Your task to perform on an android device: set default search engine in the chrome app Image 0: 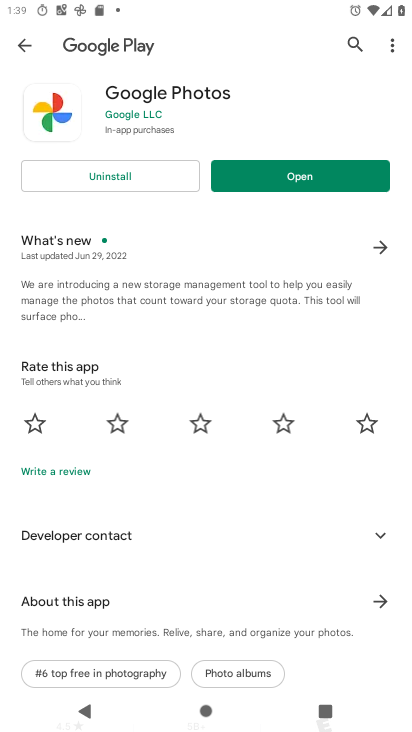
Step 0: press home button
Your task to perform on an android device: set default search engine in the chrome app Image 1: 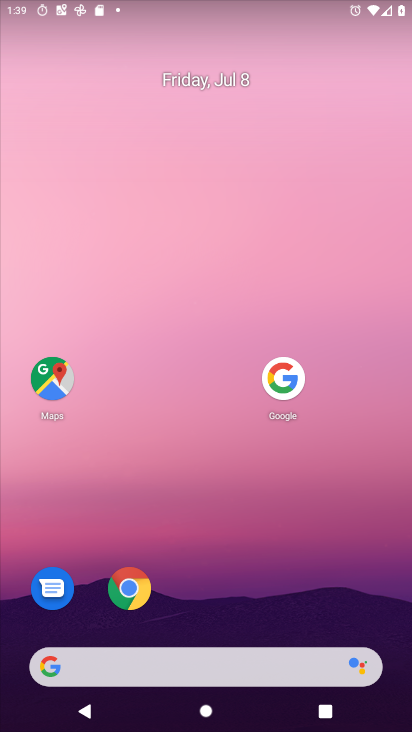
Step 1: click (123, 583)
Your task to perform on an android device: set default search engine in the chrome app Image 2: 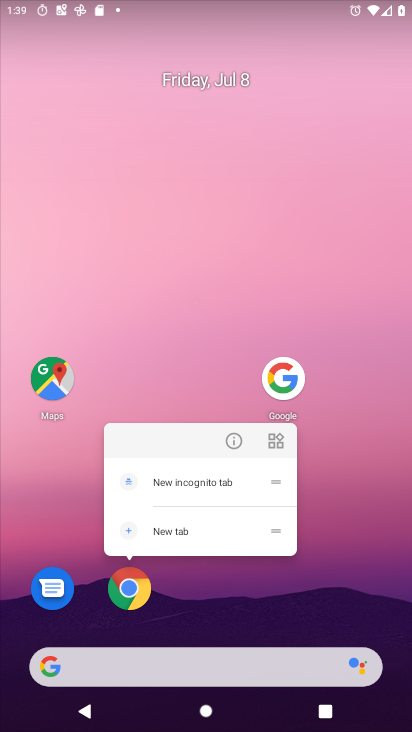
Step 2: click (127, 598)
Your task to perform on an android device: set default search engine in the chrome app Image 3: 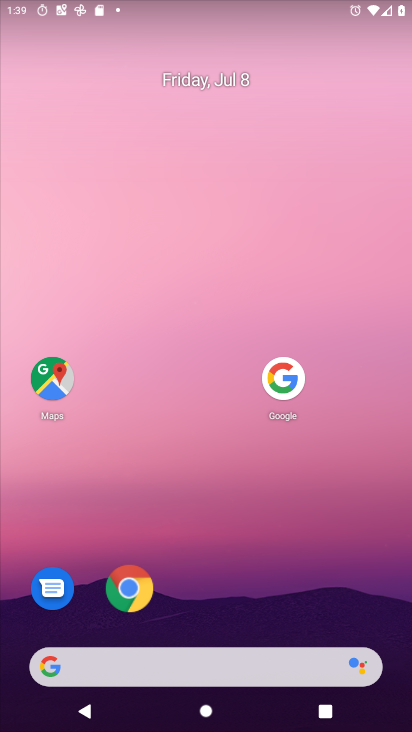
Step 3: click (123, 606)
Your task to perform on an android device: set default search engine in the chrome app Image 4: 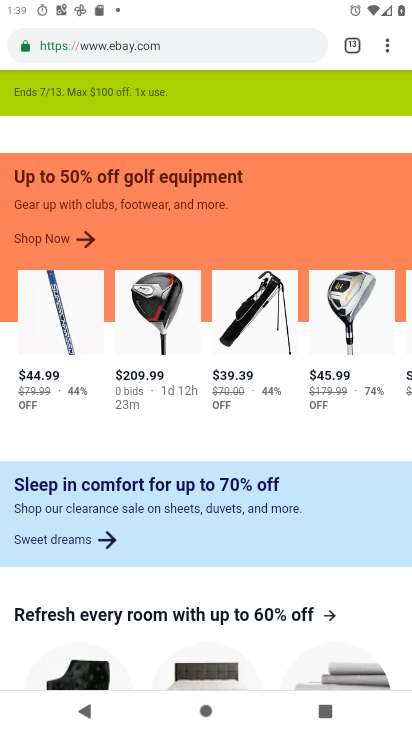
Step 4: drag from (387, 47) to (227, 556)
Your task to perform on an android device: set default search engine in the chrome app Image 5: 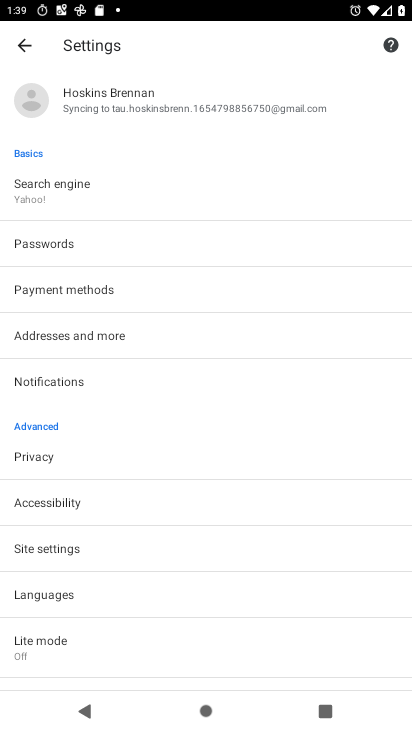
Step 5: click (60, 196)
Your task to perform on an android device: set default search engine in the chrome app Image 6: 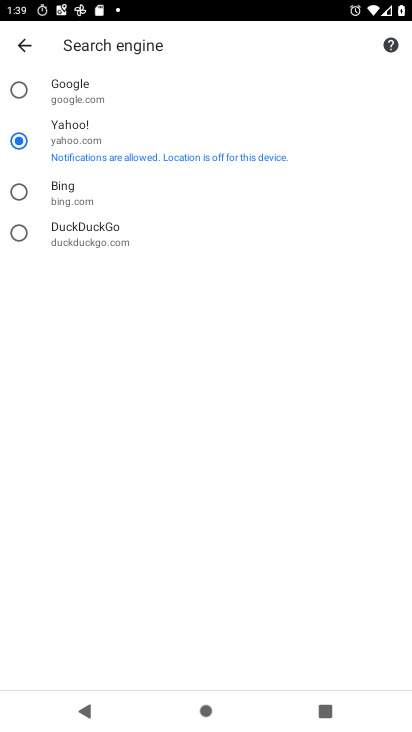
Step 6: click (14, 91)
Your task to perform on an android device: set default search engine in the chrome app Image 7: 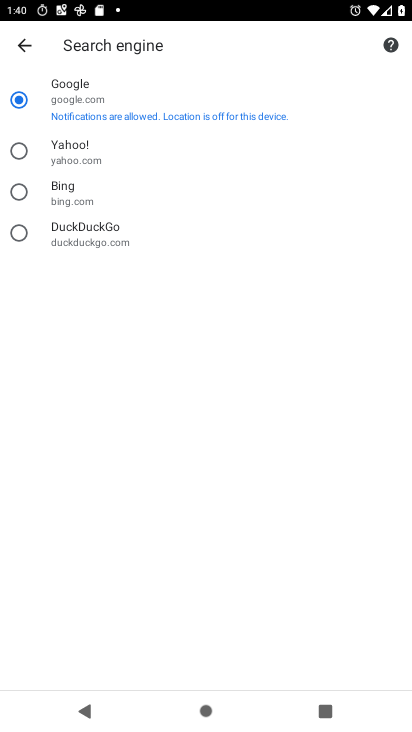
Step 7: task complete